Your task to perform on an android device: Open sound settings Image 0: 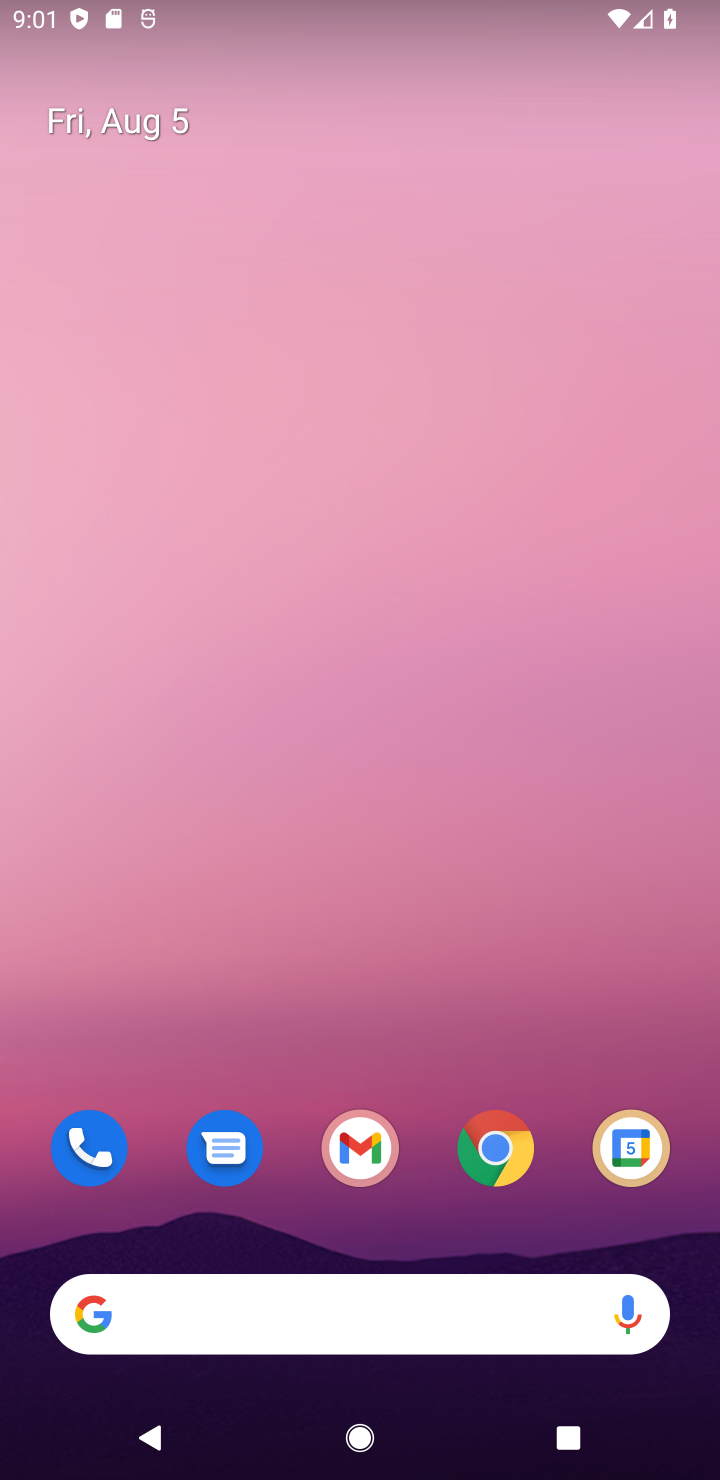
Step 0: drag from (433, 1265) to (446, 310)
Your task to perform on an android device: Open sound settings Image 1: 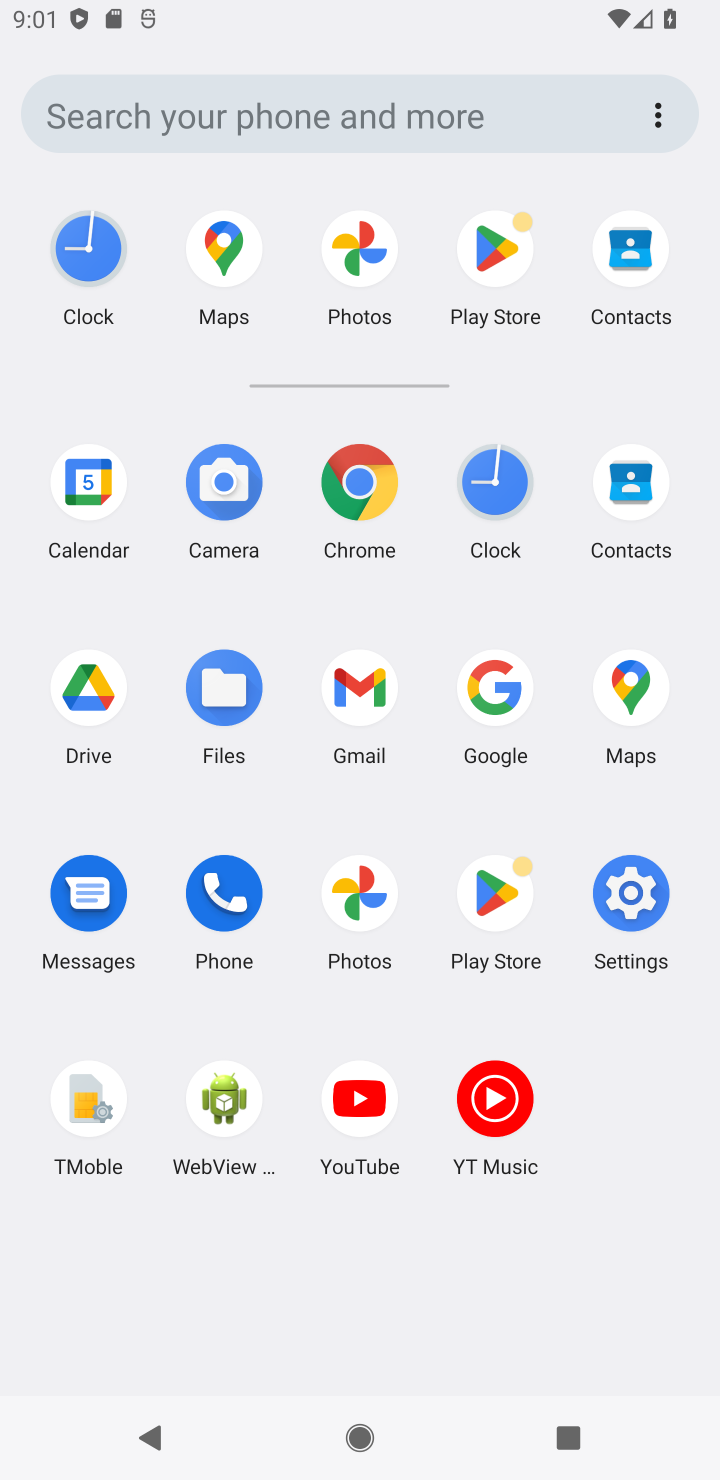
Step 1: click (623, 883)
Your task to perform on an android device: Open sound settings Image 2: 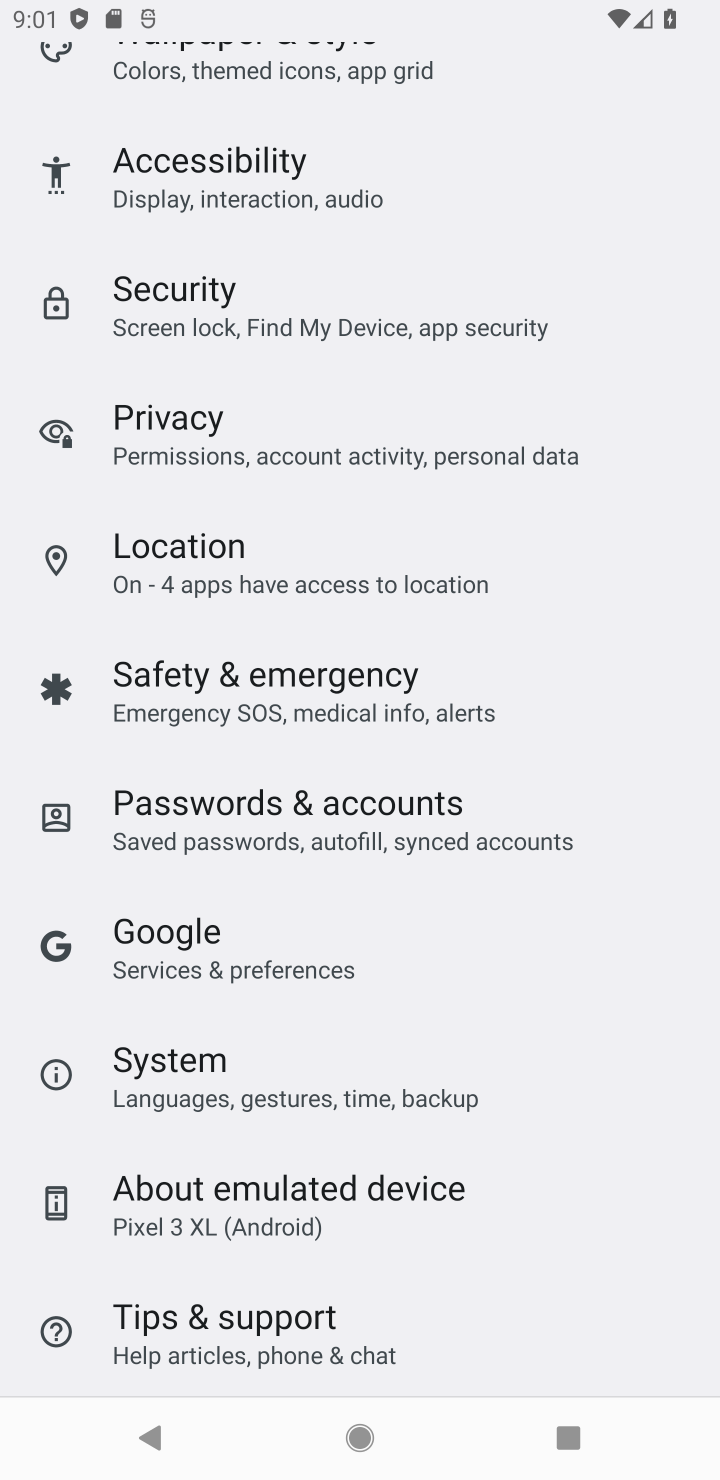
Step 2: drag from (388, 537) to (427, 1104)
Your task to perform on an android device: Open sound settings Image 3: 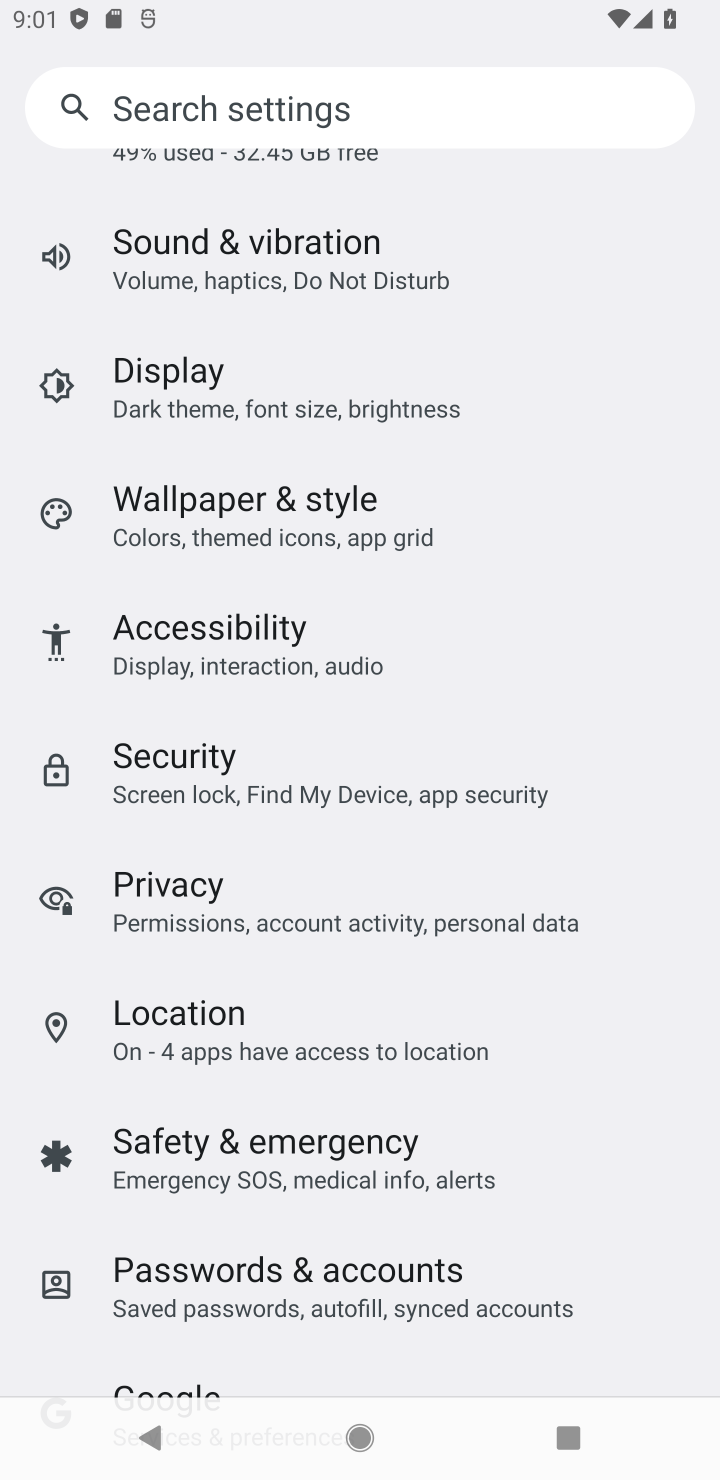
Step 3: click (336, 224)
Your task to perform on an android device: Open sound settings Image 4: 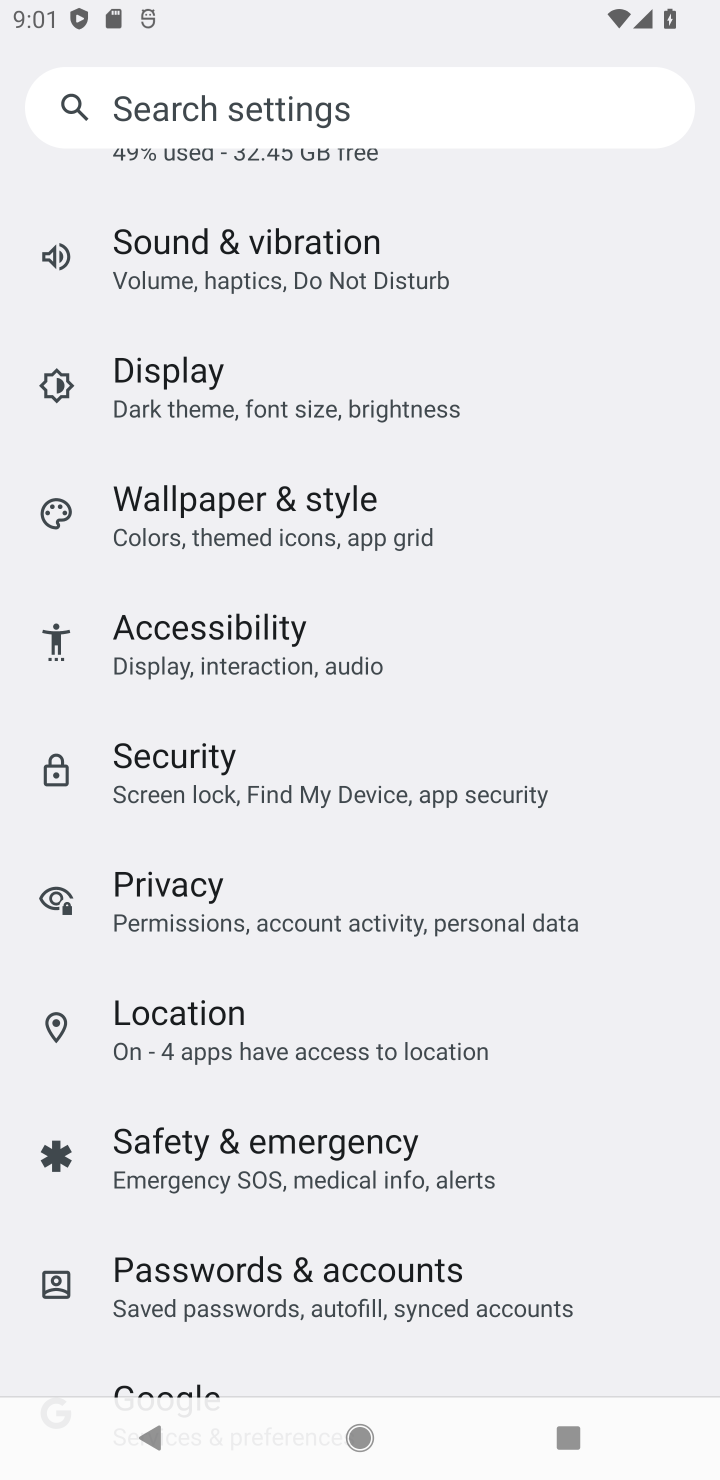
Step 4: task complete